Your task to perform on an android device: turn off translation in the chrome app Image 0: 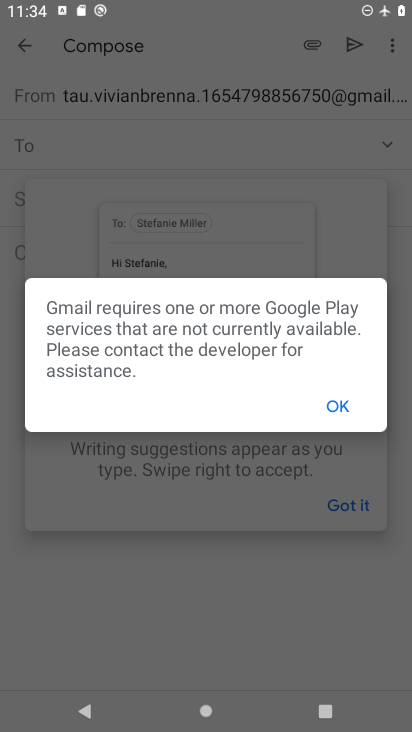
Step 0: press home button
Your task to perform on an android device: turn off translation in the chrome app Image 1: 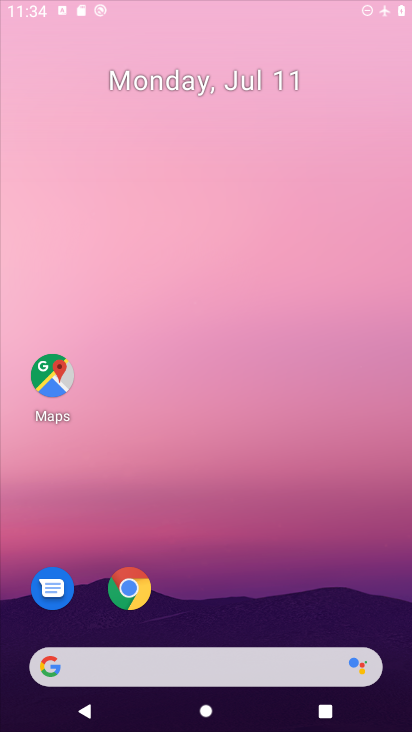
Step 1: drag from (399, 658) to (299, 4)
Your task to perform on an android device: turn off translation in the chrome app Image 2: 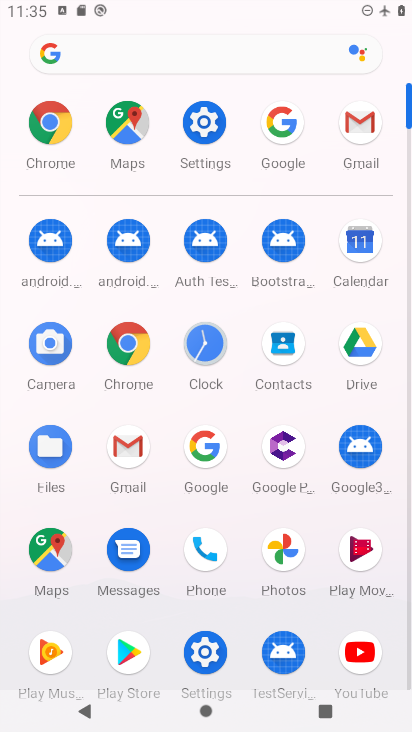
Step 2: click (139, 333)
Your task to perform on an android device: turn off translation in the chrome app Image 3: 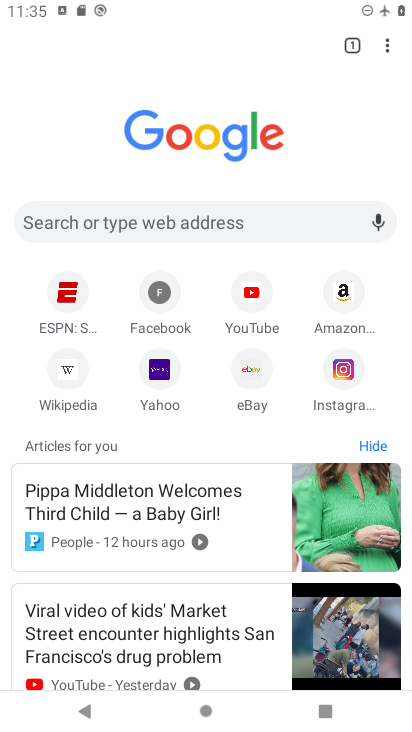
Step 3: click (389, 32)
Your task to perform on an android device: turn off translation in the chrome app Image 4: 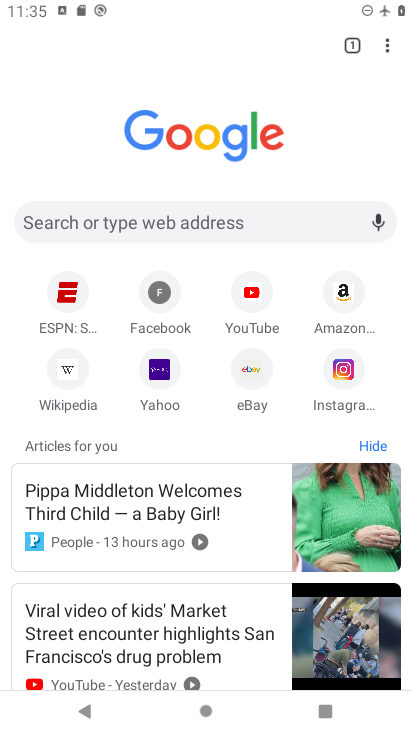
Step 4: click (386, 43)
Your task to perform on an android device: turn off translation in the chrome app Image 5: 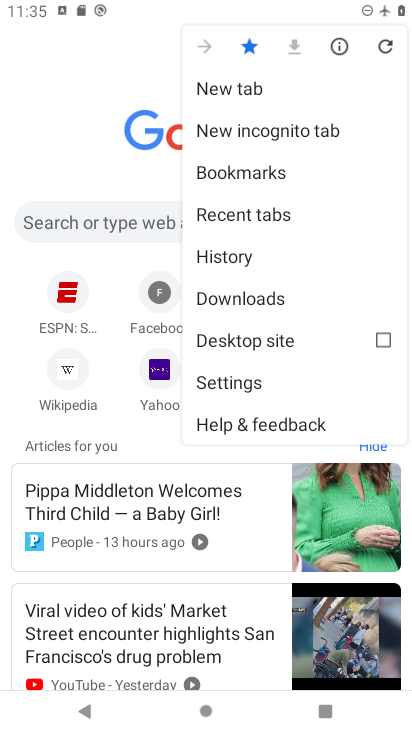
Step 5: click (241, 391)
Your task to perform on an android device: turn off translation in the chrome app Image 6: 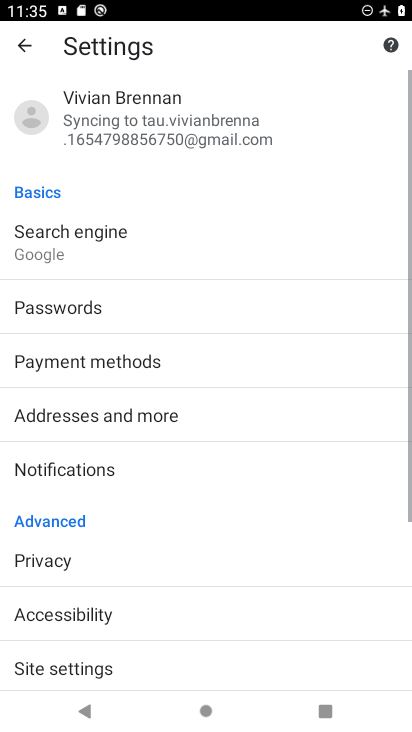
Step 6: drag from (133, 623) to (124, 158)
Your task to perform on an android device: turn off translation in the chrome app Image 7: 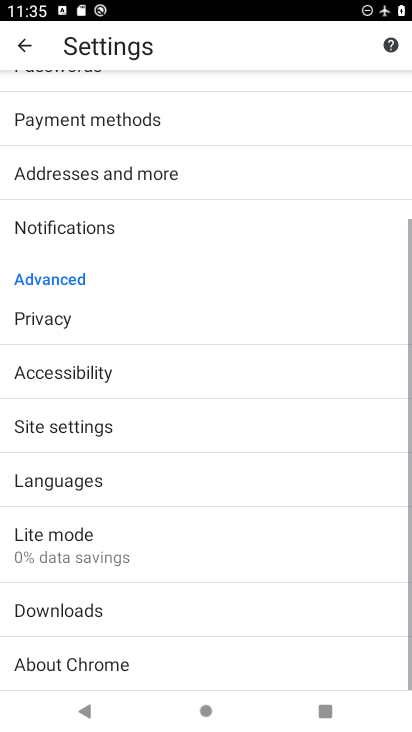
Step 7: click (69, 493)
Your task to perform on an android device: turn off translation in the chrome app Image 8: 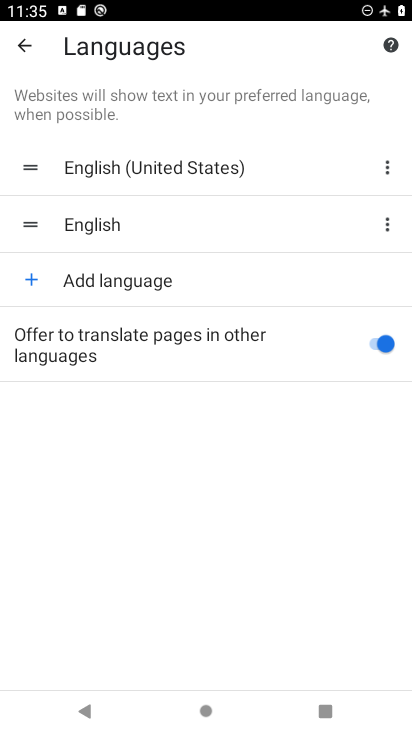
Step 8: click (238, 353)
Your task to perform on an android device: turn off translation in the chrome app Image 9: 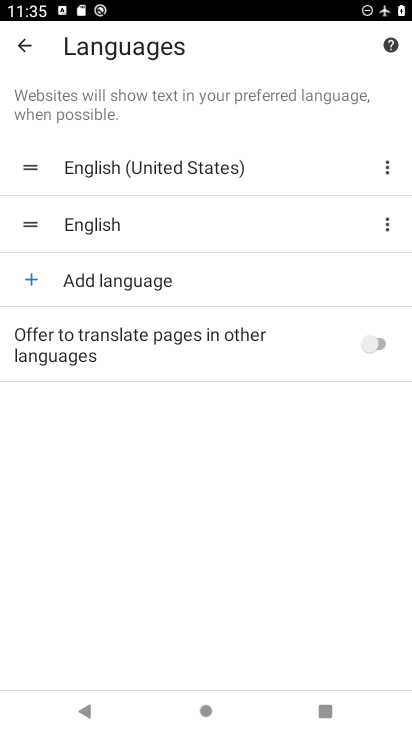
Step 9: task complete